Your task to perform on an android device: Show me popular videos on Youtube Image 0: 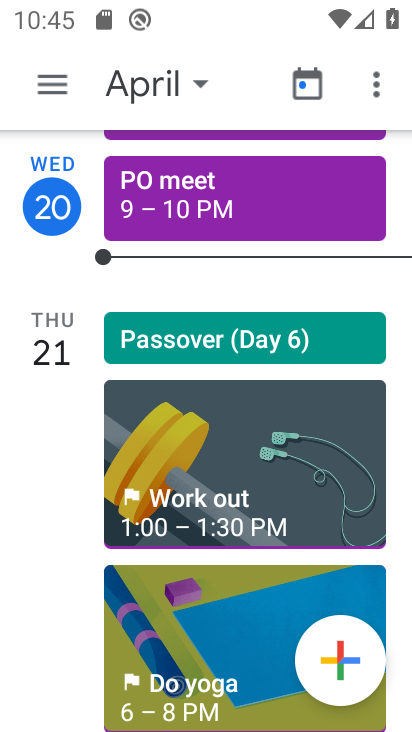
Step 0: press home button
Your task to perform on an android device: Show me popular videos on Youtube Image 1: 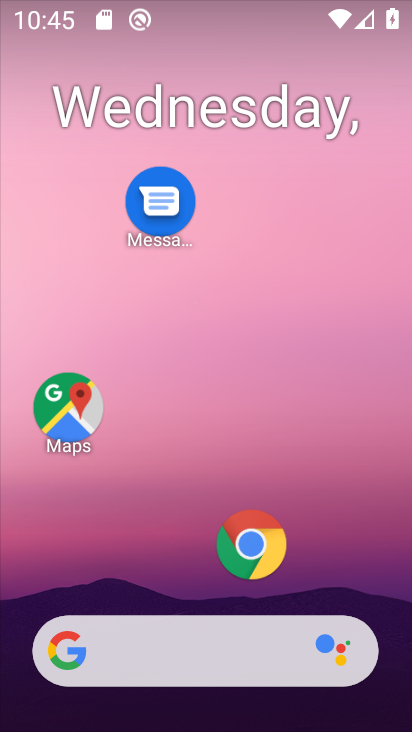
Step 1: drag from (198, 594) to (236, 205)
Your task to perform on an android device: Show me popular videos on Youtube Image 2: 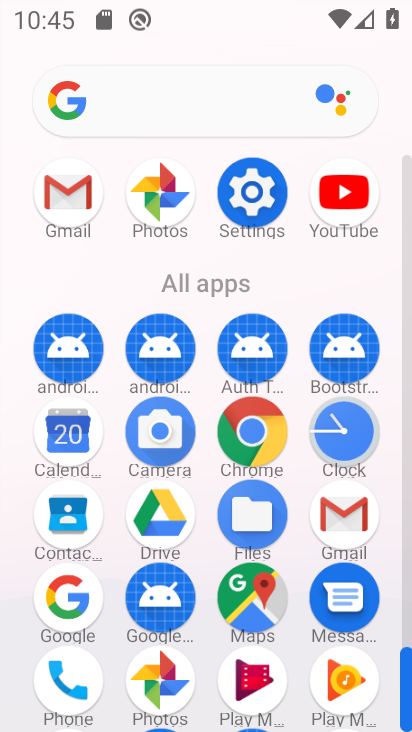
Step 2: click (341, 204)
Your task to perform on an android device: Show me popular videos on Youtube Image 3: 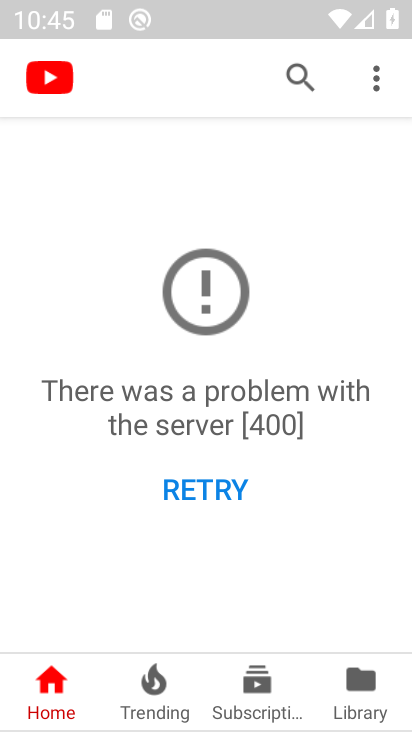
Step 3: click (63, 75)
Your task to perform on an android device: Show me popular videos on Youtube Image 4: 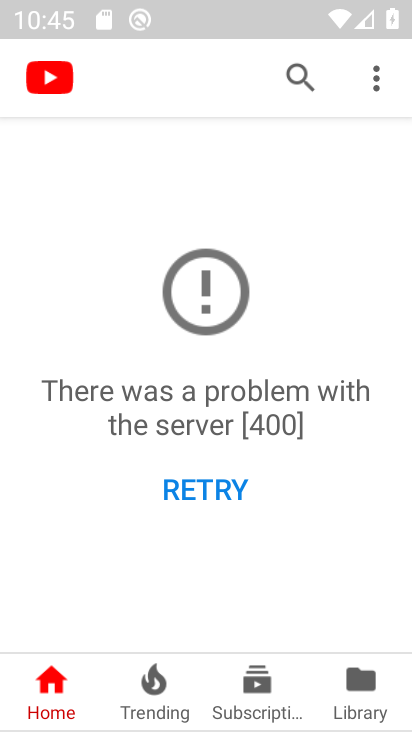
Step 4: click (295, 65)
Your task to perform on an android device: Show me popular videos on Youtube Image 5: 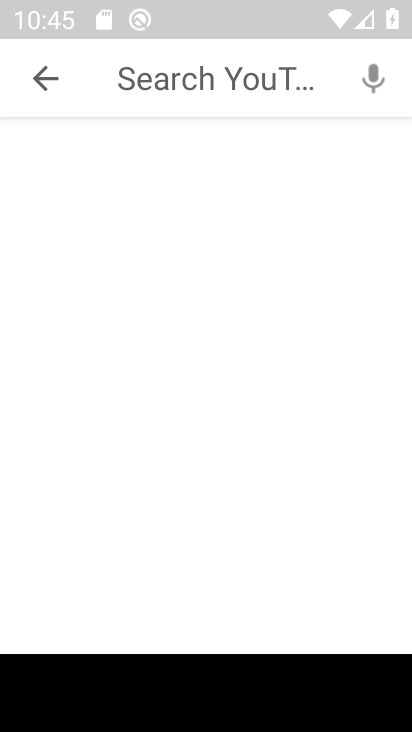
Step 5: type "popular videos"
Your task to perform on an android device: Show me popular videos on Youtube Image 6: 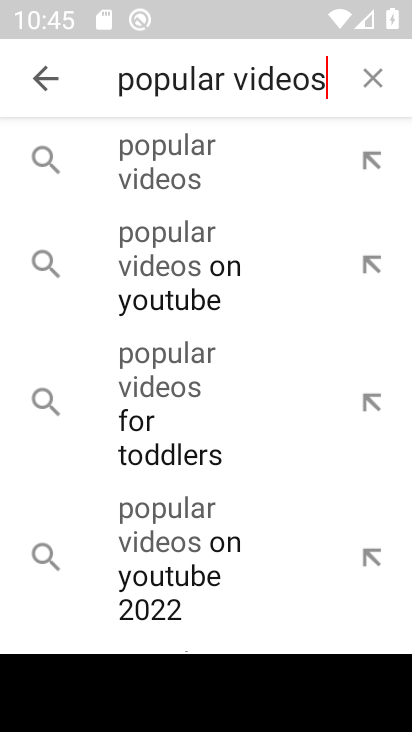
Step 6: click (162, 174)
Your task to perform on an android device: Show me popular videos on Youtube Image 7: 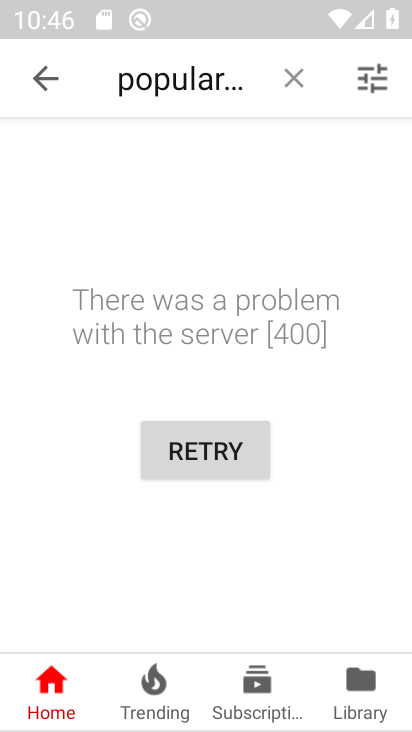
Step 7: task complete